Your task to perform on an android device: turn off javascript in the chrome app Image 0: 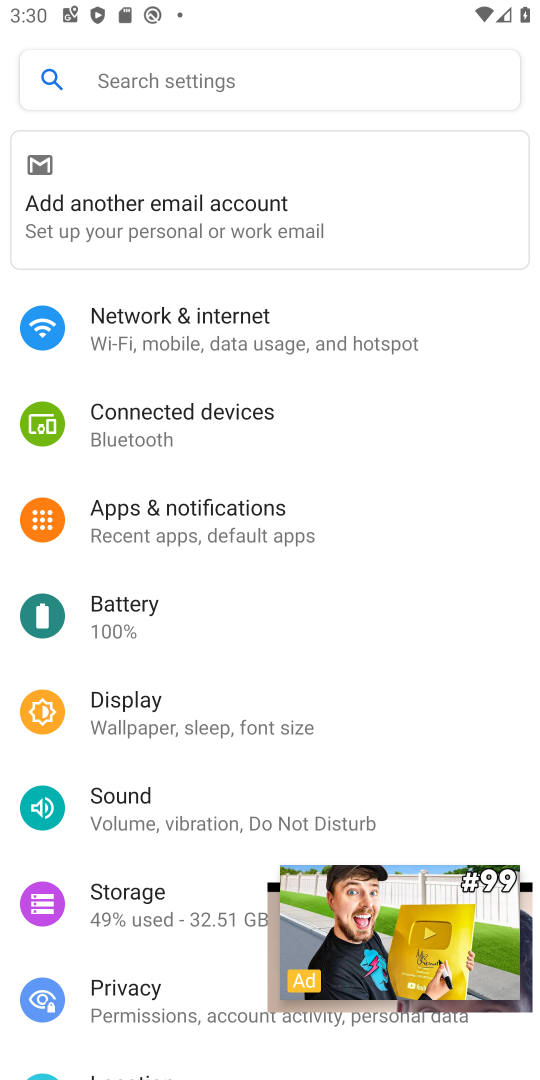
Step 0: press home button
Your task to perform on an android device: turn off javascript in the chrome app Image 1: 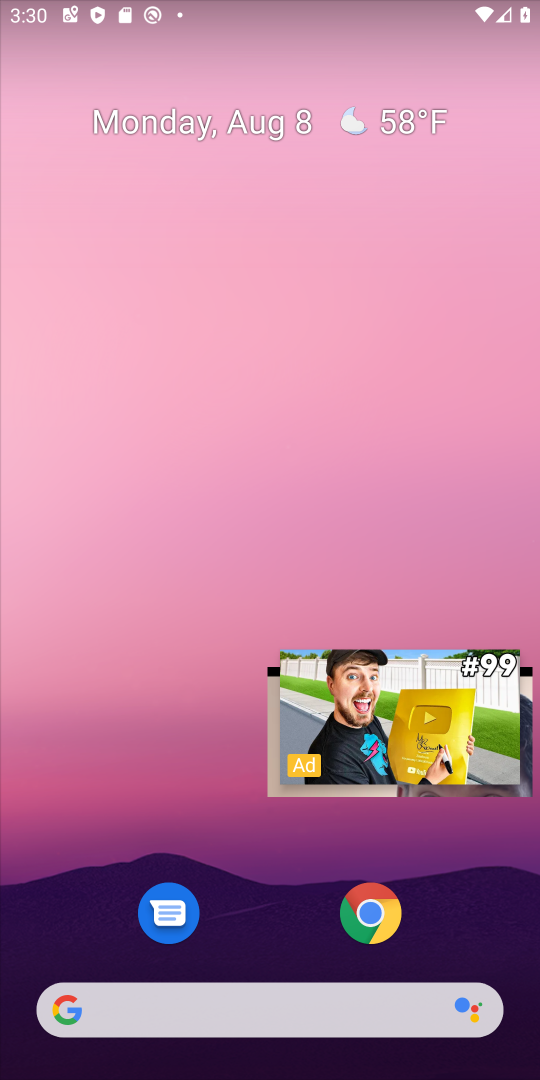
Step 1: drag from (246, 664) to (299, 140)
Your task to perform on an android device: turn off javascript in the chrome app Image 2: 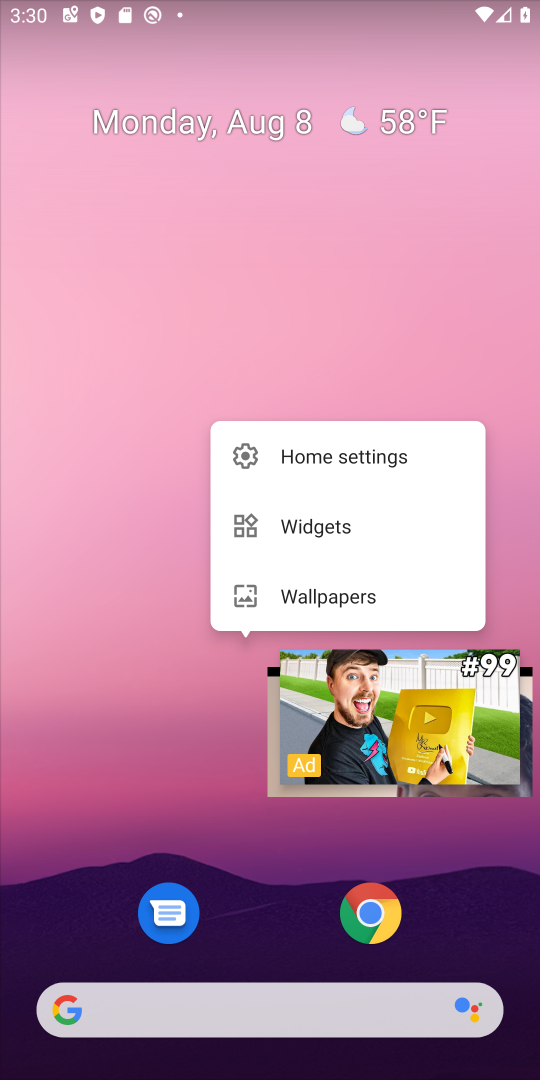
Step 2: click (146, 632)
Your task to perform on an android device: turn off javascript in the chrome app Image 3: 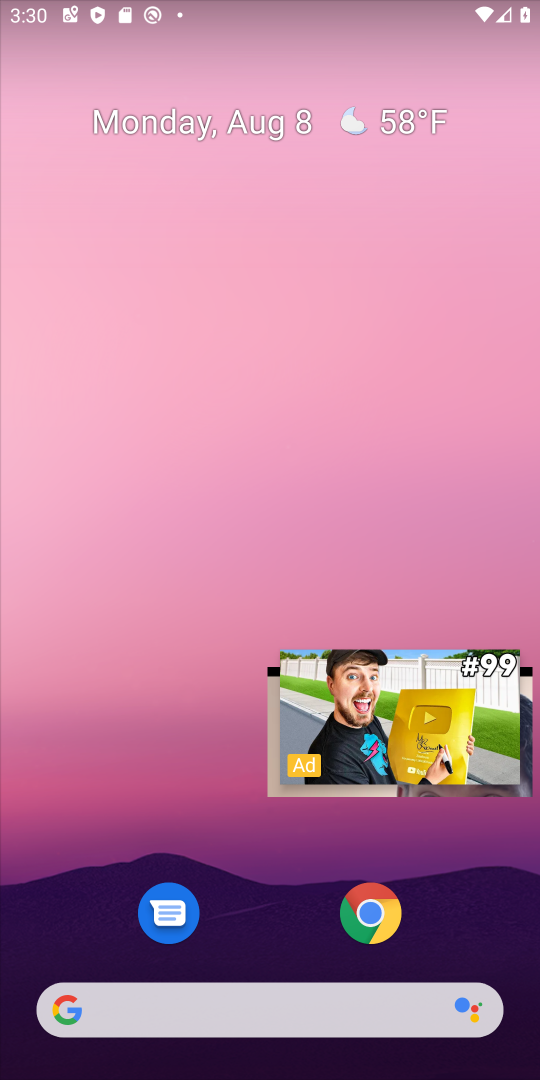
Step 3: drag from (66, 820) to (131, 235)
Your task to perform on an android device: turn off javascript in the chrome app Image 4: 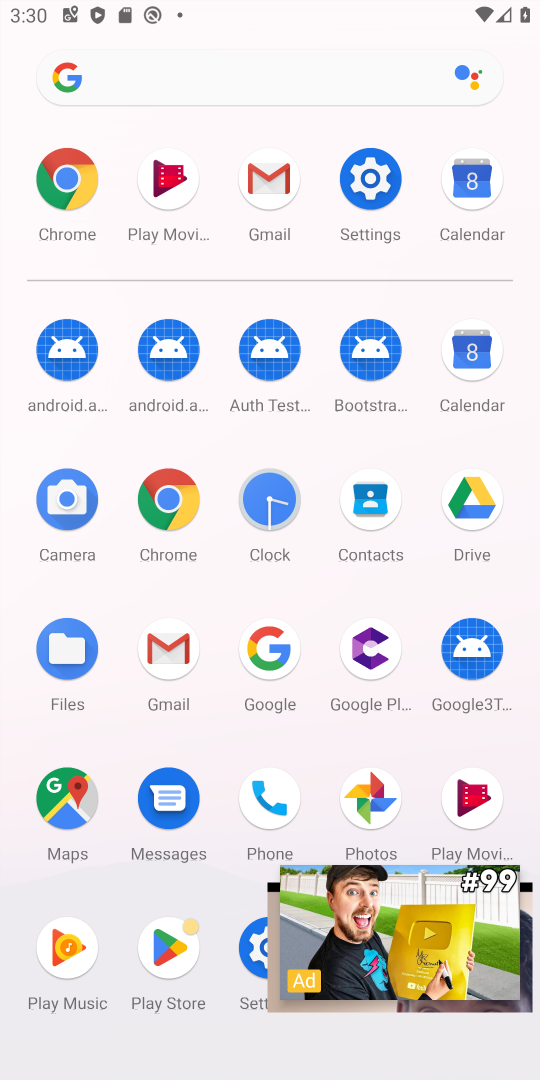
Step 4: click (167, 499)
Your task to perform on an android device: turn off javascript in the chrome app Image 5: 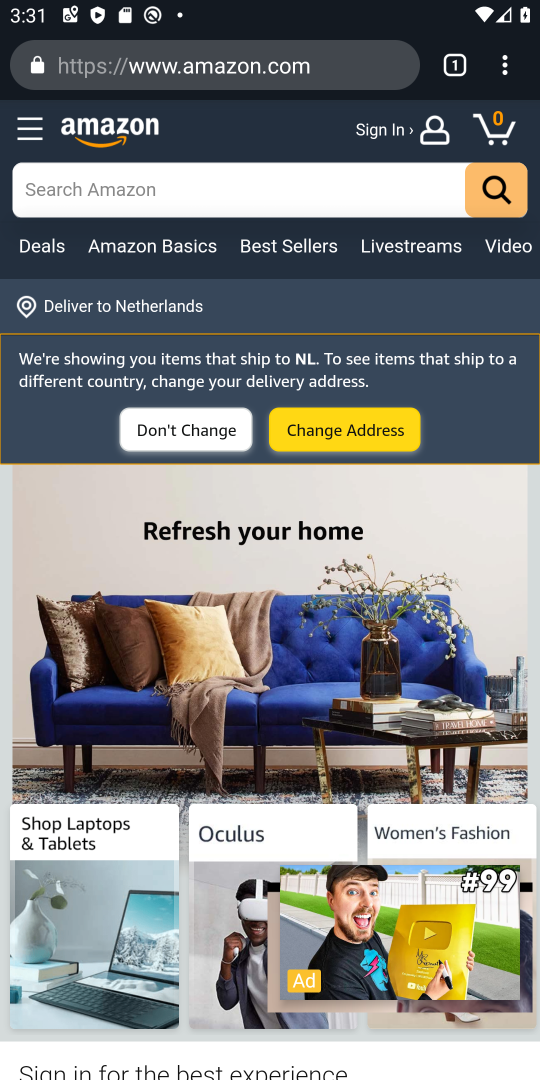
Step 5: click (507, 70)
Your task to perform on an android device: turn off javascript in the chrome app Image 6: 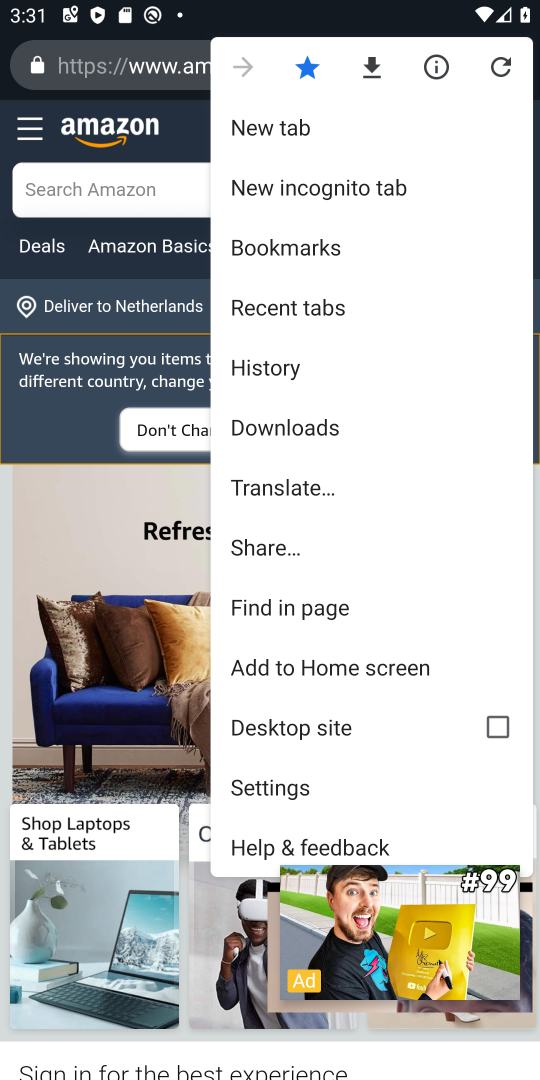
Step 6: click (299, 784)
Your task to perform on an android device: turn off javascript in the chrome app Image 7: 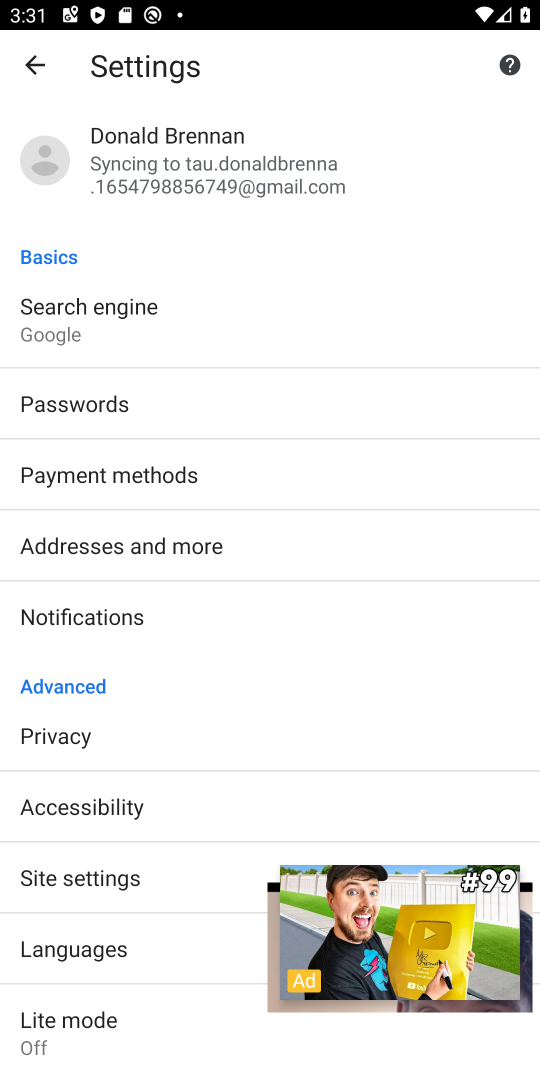
Step 7: drag from (184, 909) to (199, 688)
Your task to perform on an android device: turn off javascript in the chrome app Image 8: 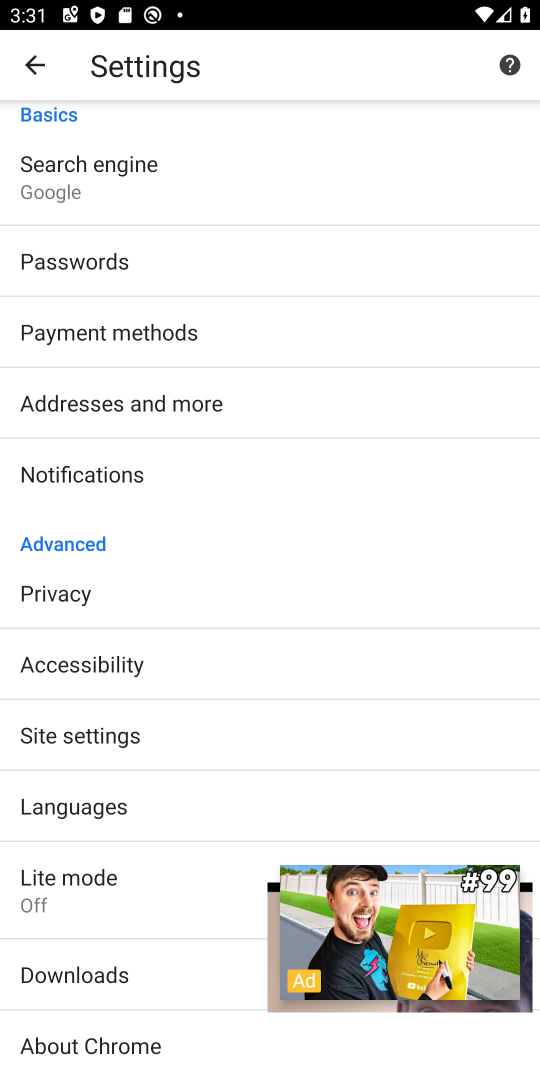
Step 8: drag from (178, 981) to (187, 672)
Your task to perform on an android device: turn off javascript in the chrome app Image 9: 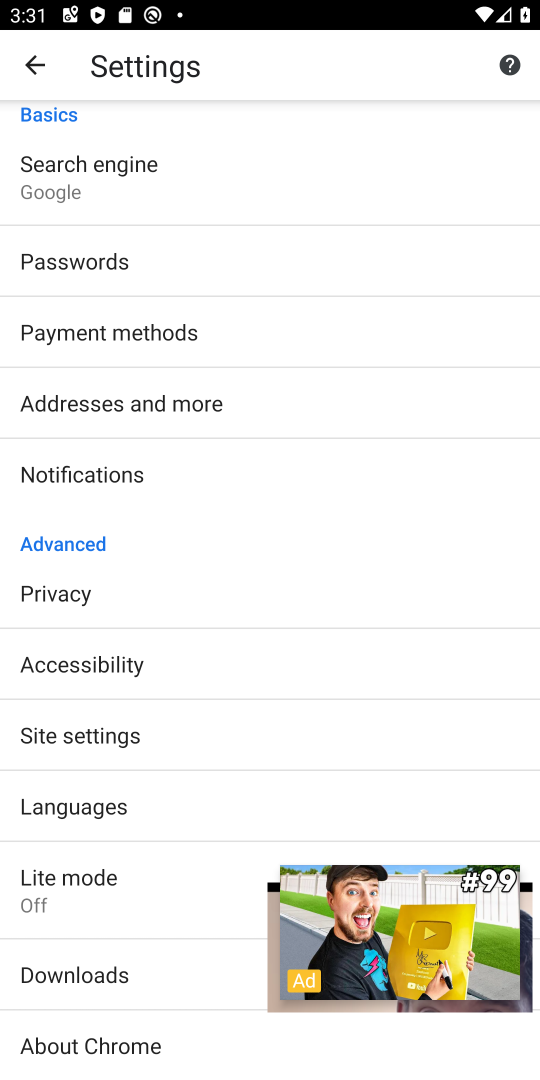
Step 9: click (191, 740)
Your task to perform on an android device: turn off javascript in the chrome app Image 10: 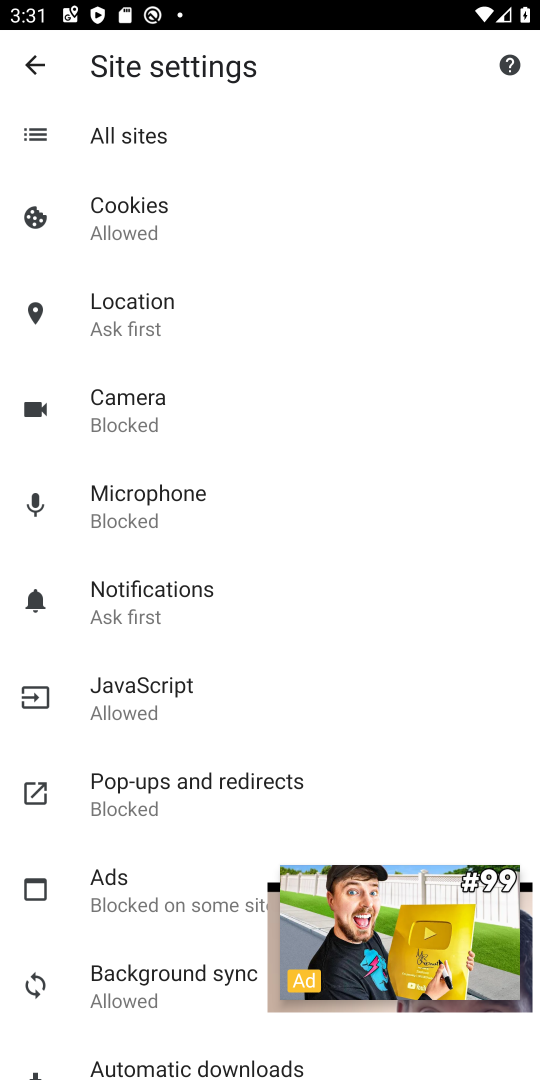
Step 10: drag from (185, 787) to (233, 542)
Your task to perform on an android device: turn off javascript in the chrome app Image 11: 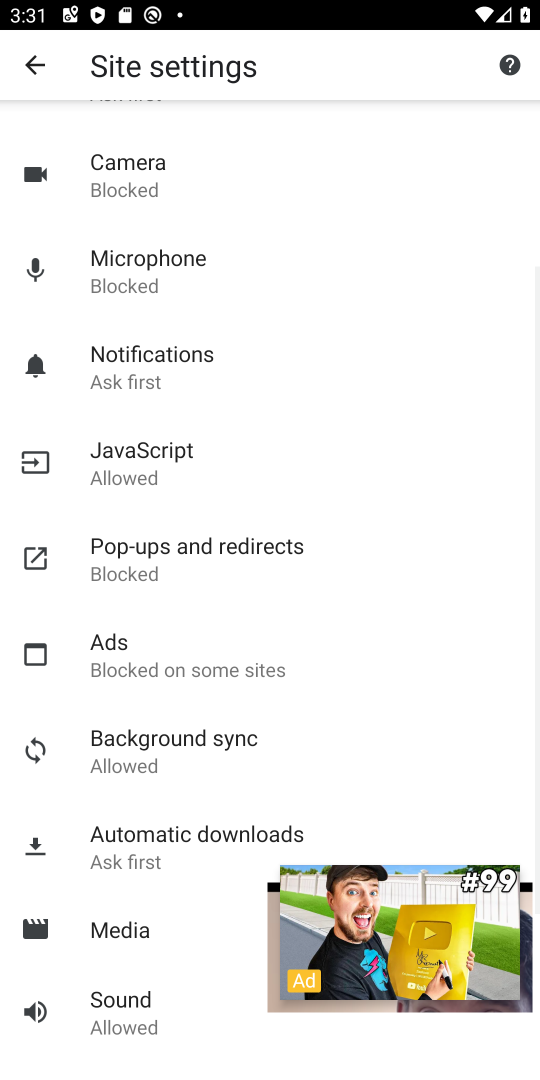
Step 11: drag from (211, 690) to (227, 428)
Your task to perform on an android device: turn off javascript in the chrome app Image 12: 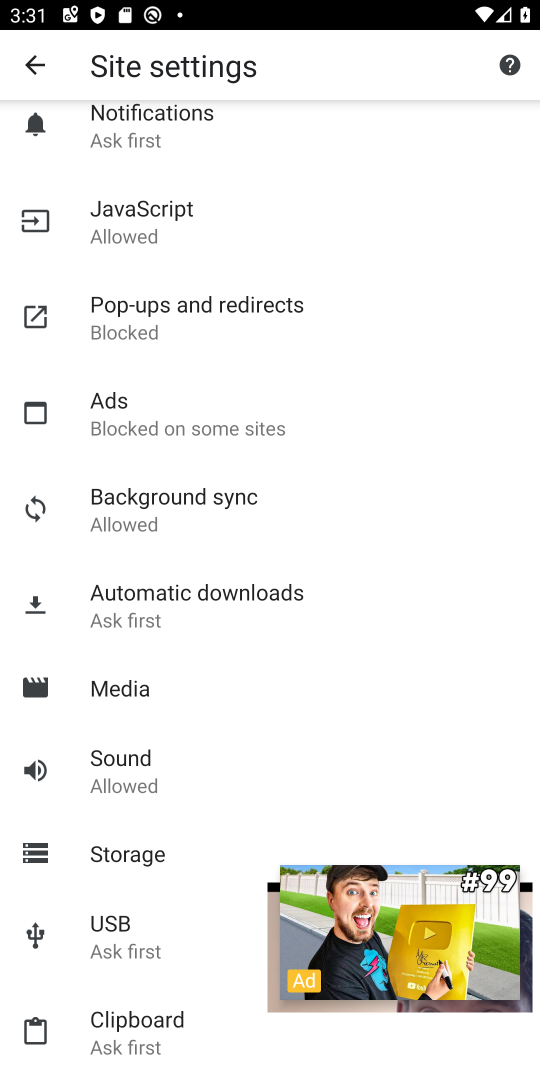
Step 12: click (180, 217)
Your task to perform on an android device: turn off javascript in the chrome app Image 13: 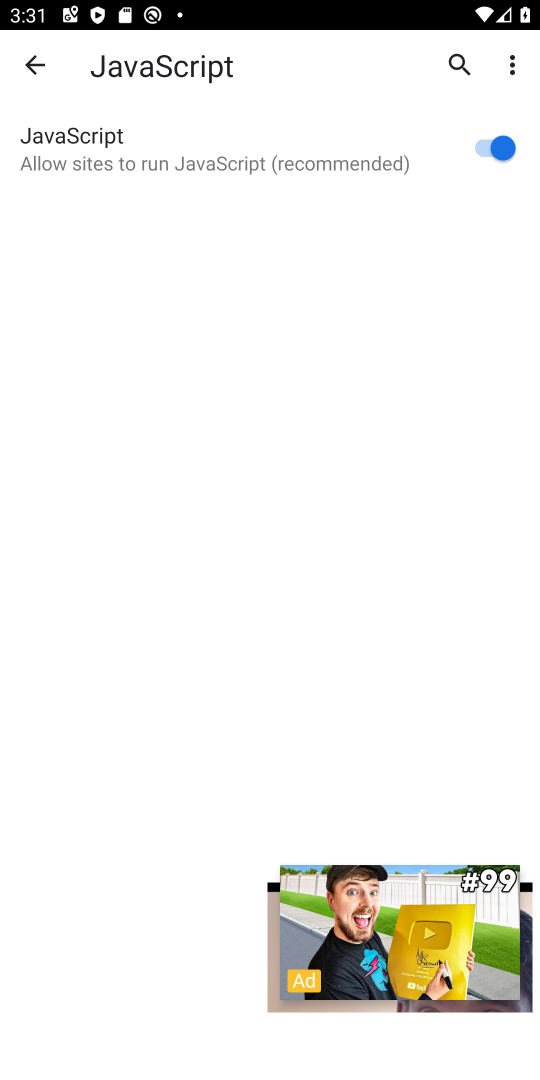
Step 13: click (500, 154)
Your task to perform on an android device: turn off javascript in the chrome app Image 14: 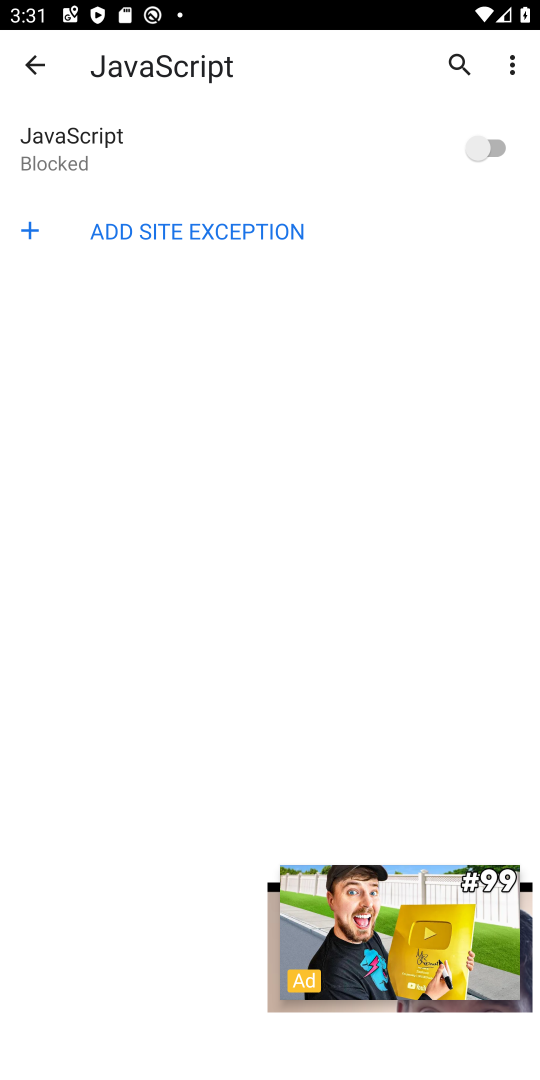
Step 14: task complete